Your task to perform on an android device: toggle notification dots Image 0: 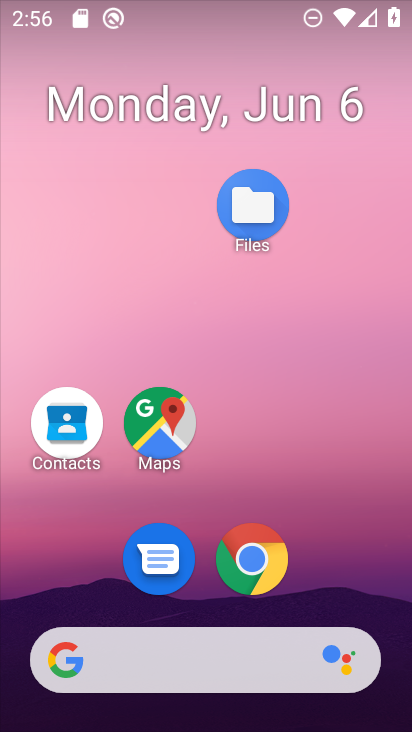
Step 0: drag from (183, 672) to (239, 127)
Your task to perform on an android device: toggle notification dots Image 1: 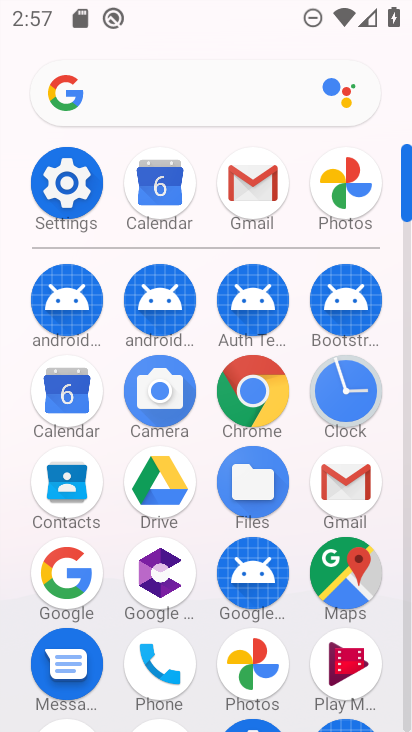
Step 1: click (77, 205)
Your task to perform on an android device: toggle notification dots Image 2: 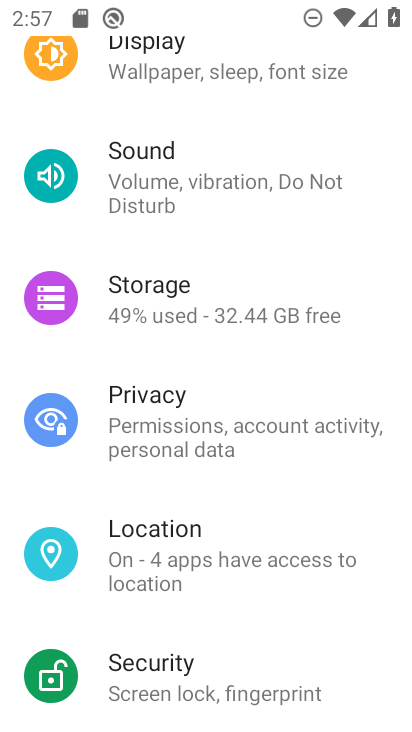
Step 2: drag from (121, 254) to (136, 631)
Your task to perform on an android device: toggle notification dots Image 3: 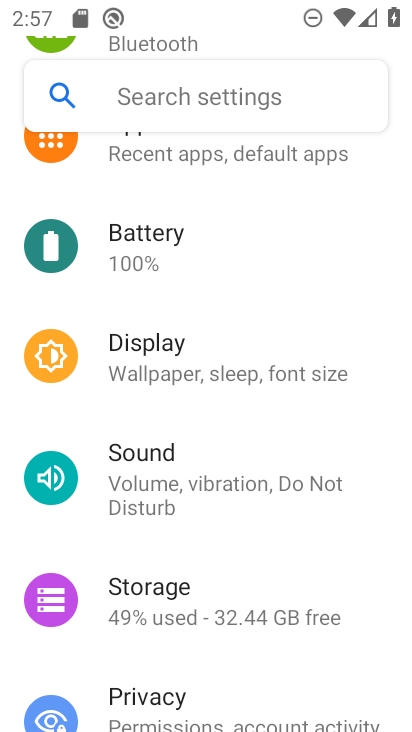
Step 3: drag from (213, 337) to (190, 623)
Your task to perform on an android device: toggle notification dots Image 4: 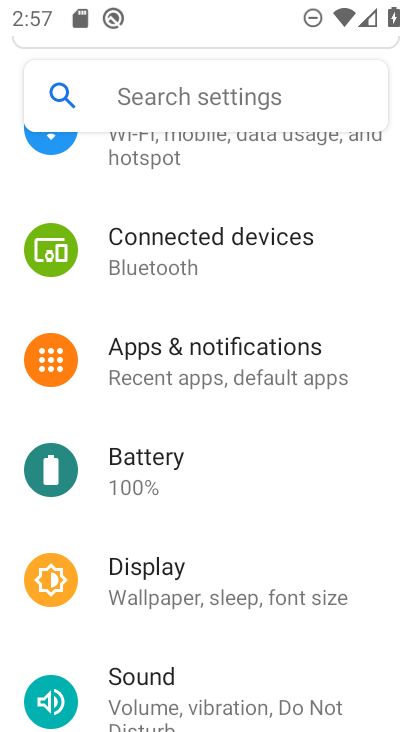
Step 4: click (224, 363)
Your task to perform on an android device: toggle notification dots Image 5: 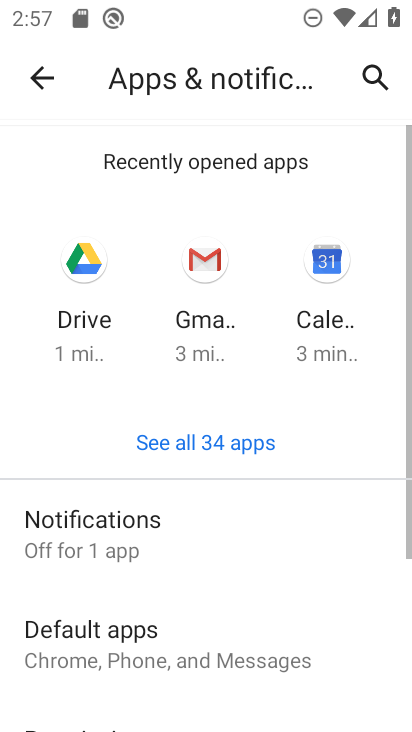
Step 5: click (180, 552)
Your task to perform on an android device: toggle notification dots Image 6: 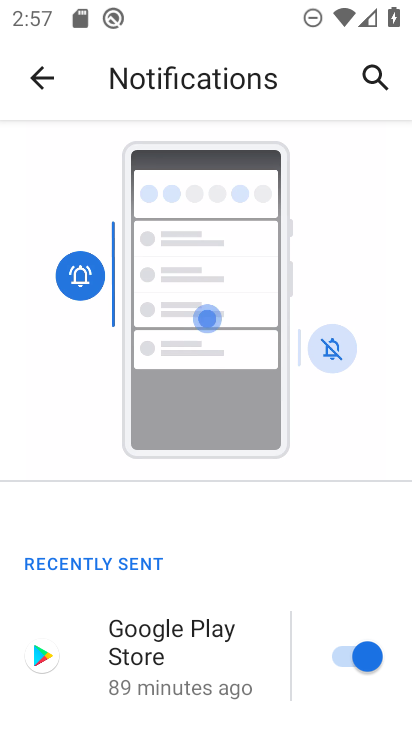
Step 6: drag from (170, 612) to (232, 221)
Your task to perform on an android device: toggle notification dots Image 7: 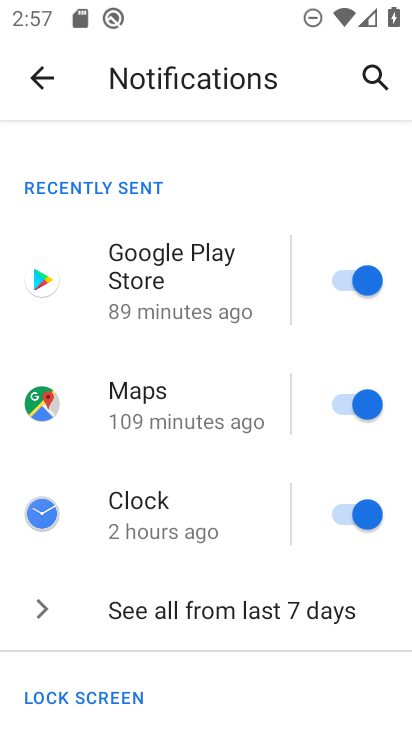
Step 7: drag from (190, 565) to (224, 350)
Your task to perform on an android device: toggle notification dots Image 8: 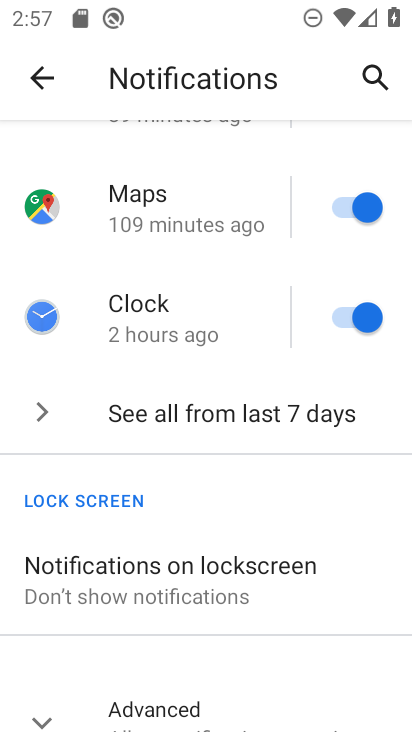
Step 8: drag from (183, 643) to (234, 321)
Your task to perform on an android device: toggle notification dots Image 9: 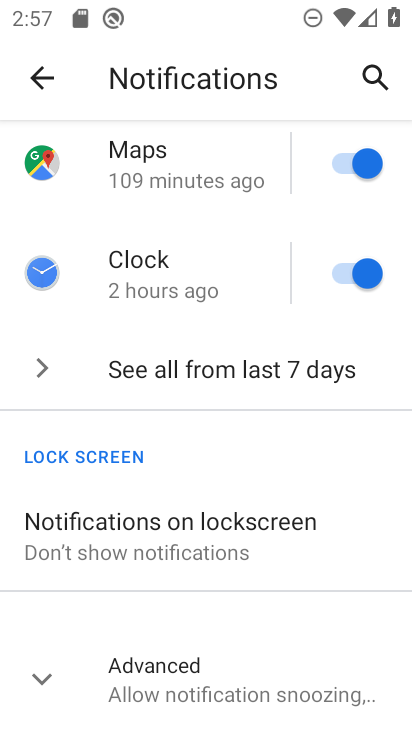
Step 9: click (165, 689)
Your task to perform on an android device: toggle notification dots Image 10: 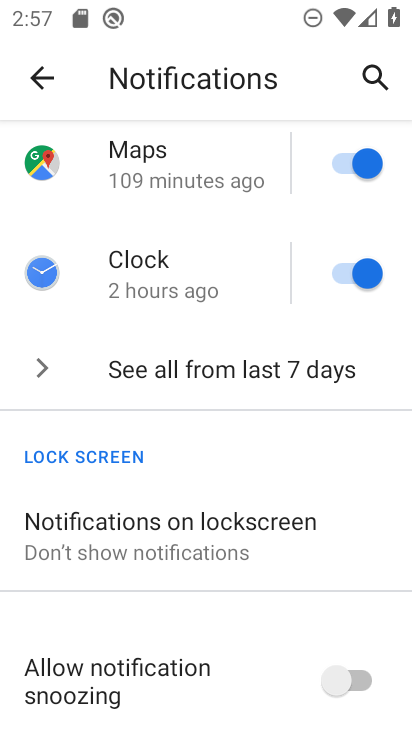
Step 10: drag from (180, 575) to (245, 203)
Your task to perform on an android device: toggle notification dots Image 11: 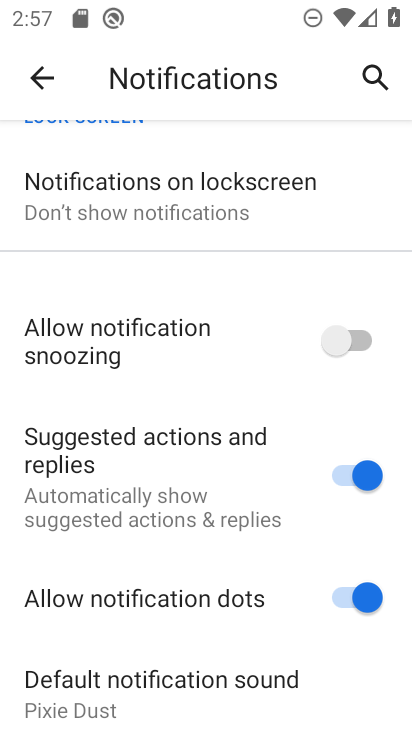
Step 11: click (195, 599)
Your task to perform on an android device: toggle notification dots Image 12: 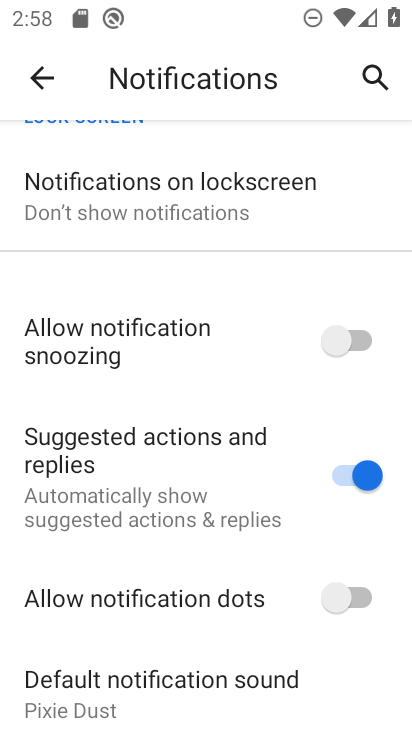
Step 12: task complete